Your task to perform on an android device: Play the last video I watched on Youtube Image 0: 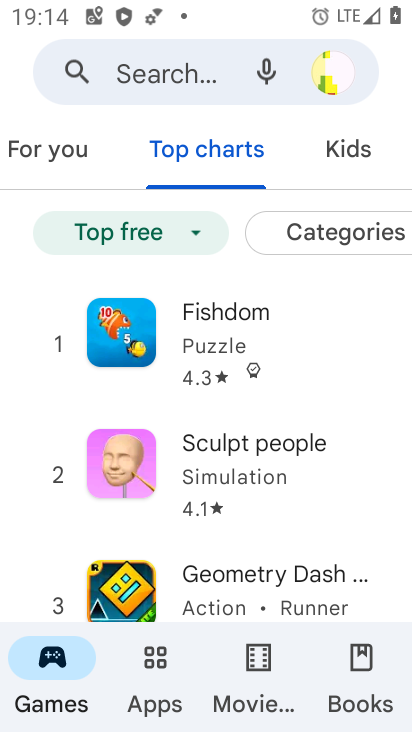
Step 0: press home button
Your task to perform on an android device: Play the last video I watched on Youtube Image 1: 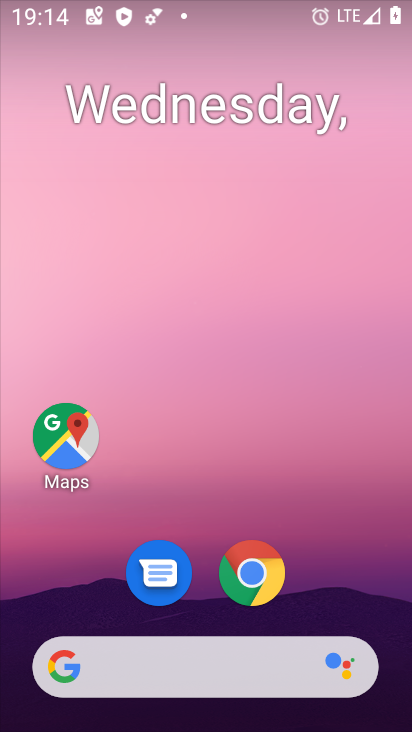
Step 1: drag from (174, 493) to (159, 4)
Your task to perform on an android device: Play the last video I watched on Youtube Image 2: 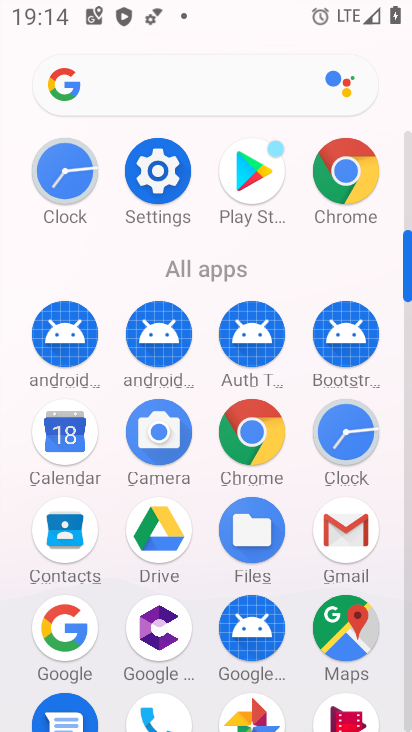
Step 2: drag from (200, 296) to (187, 28)
Your task to perform on an android device: Play the last video I watched on Youtube Image 3: 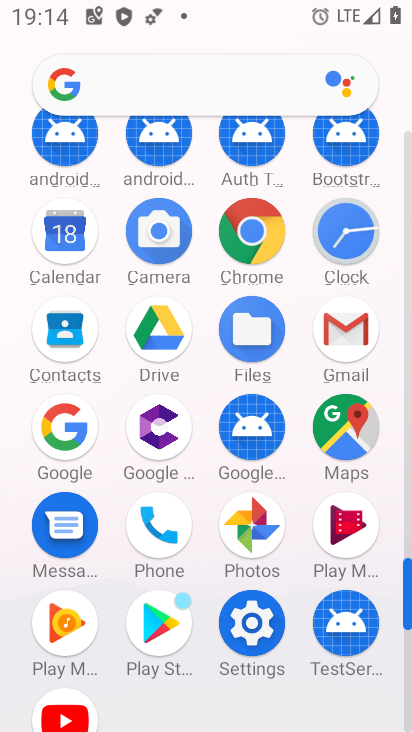
Step 3: click (67, 722)
Your task to perform on an android device: Play the last video I watched on Youtube Image 4: 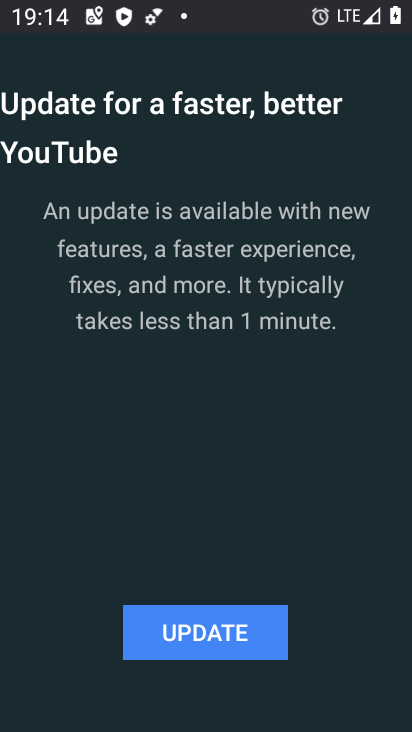
Step 4: click (193, 642)
Your task to perform on an android device: Play the last video I watched on Youtube Image 5: 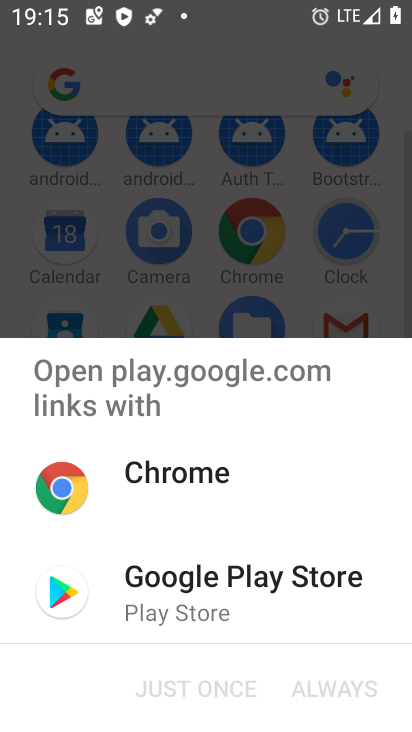
Step 5: click (125, 580)
Your task to perform on an android device: Play the last video I watched on Youtube Image 6: 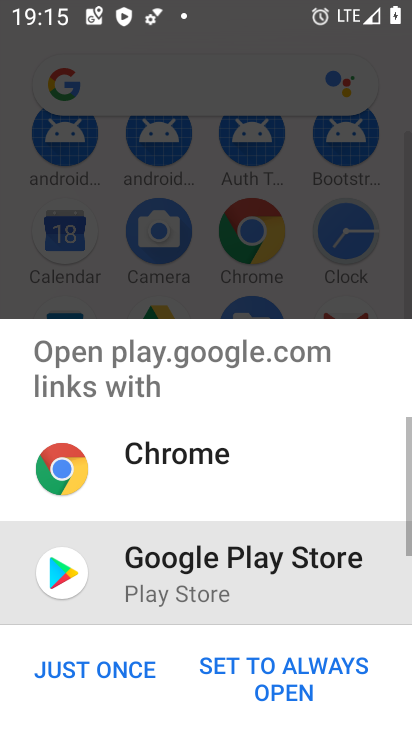
Step 6: click (100, 679)
Your task to perform on an android device: Play the last video I watched on Youtube Image 7: 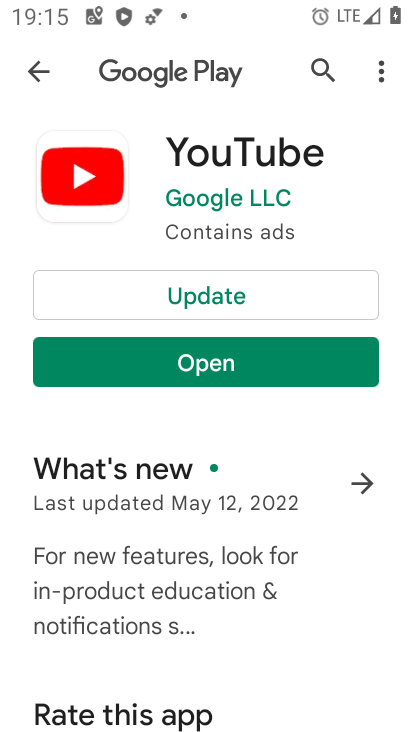
Step 7: click (272, 372)
Your task to perform on an android device: Play the last video I watched on Youtube Image 8: 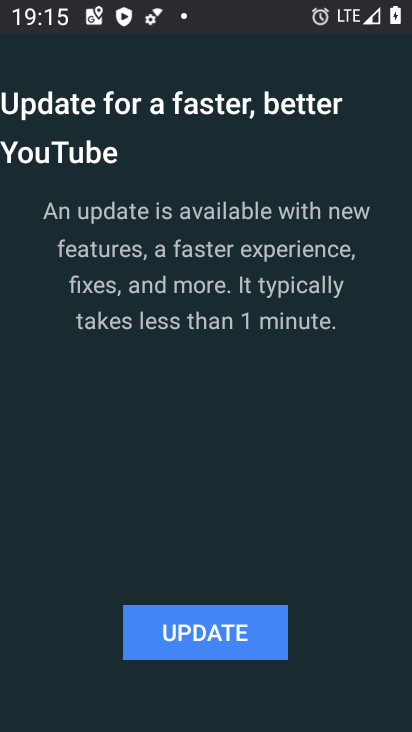
Step 8: click (240, 637)
Your task to perform on an android device: Play the last video I watched on Youtube Image 9: 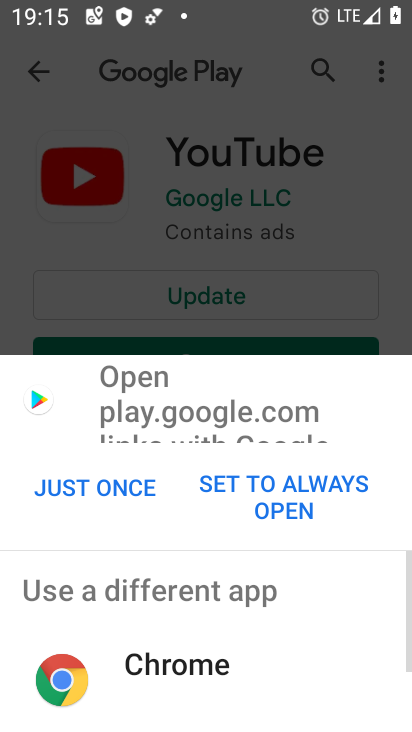
Step 9: click (106, 490)
Your task to perform on an android device: Play the last video I watched on Youtube Image 10: 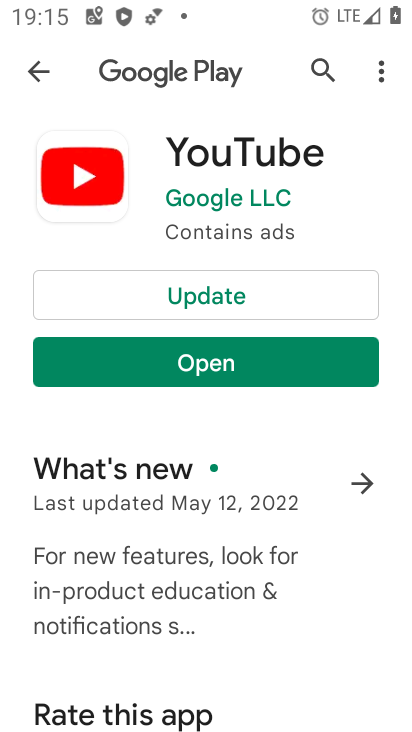
Step 10: click (132, 303)
Your task to perform on an android device: Play the last video I watched on Youtube Image 11: 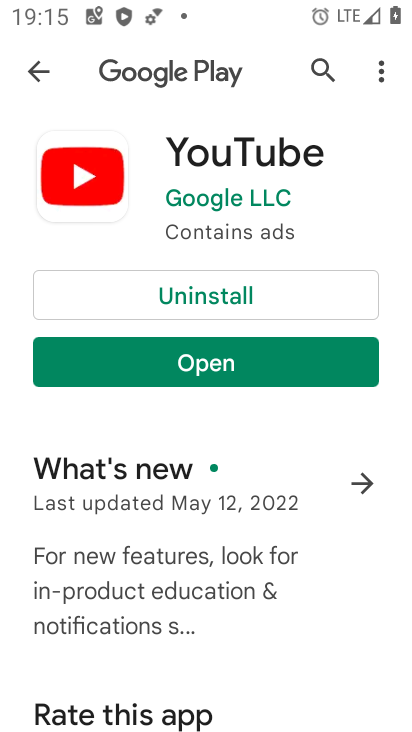
Step 11: click (201, 366)
Your task to perform on an android device: Play the last video I watched on Youtube Image 12: 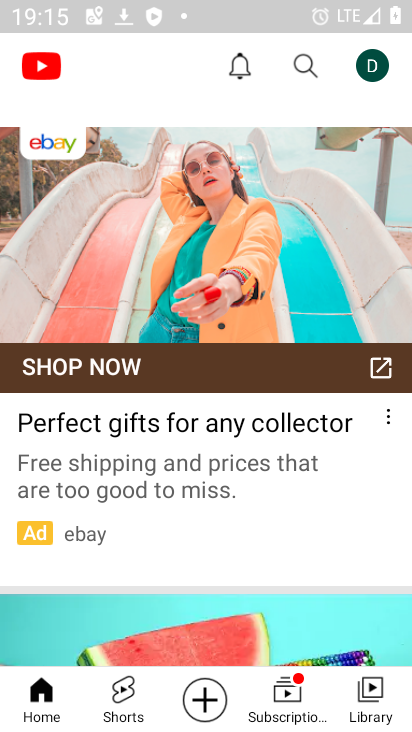
Step 12: click (364, 685)
Your task to perform on an android device: Play the last video I watched on Youtube Image 13: 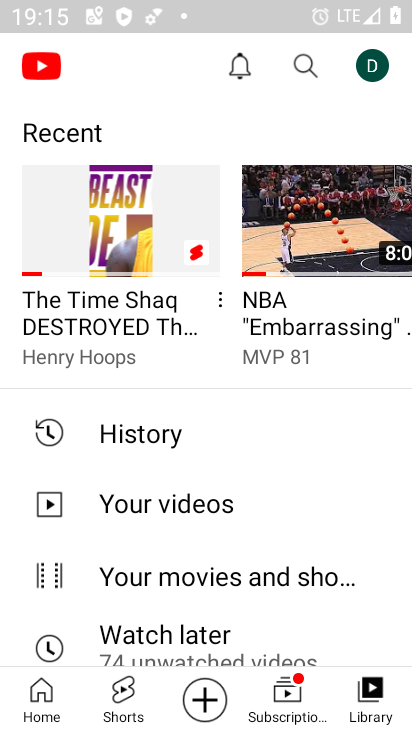
Step 13: click (142, 315)
Your task to perform on an android device: Play the last video I watched on Youtube Image 14: 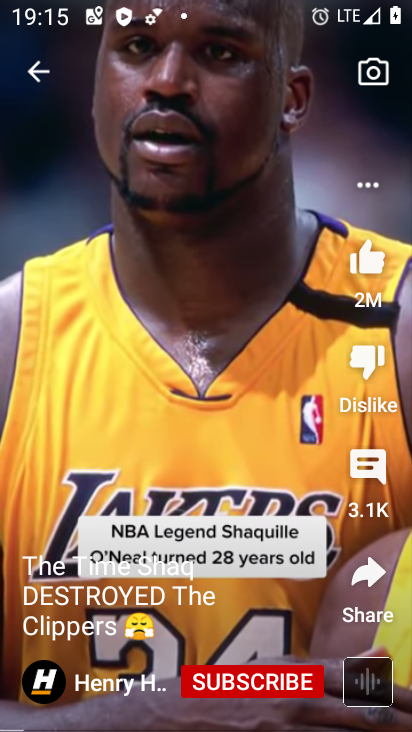
Step 14: task complete